Your task to perform on an android device: open a bookmark in the chrome app Image 0: 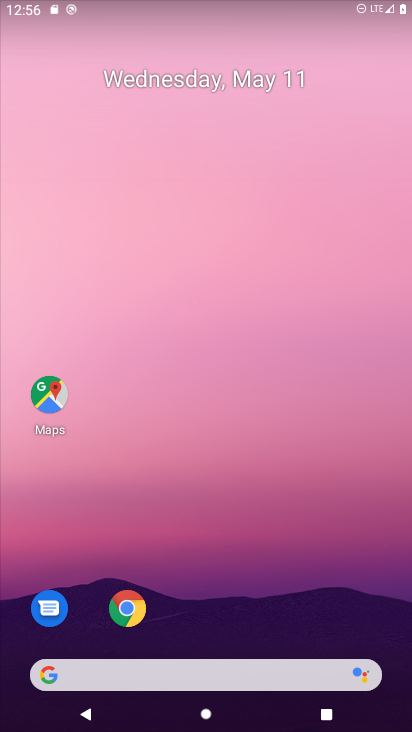
Step 0: drag from (201, 576) to (217, 79)
Your task to perform on an android device: open a bookmark in the chrome app Image 1: 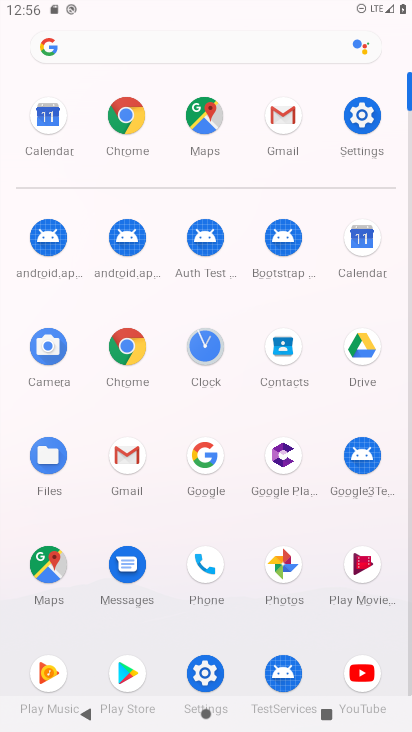
Step 1: click (132, 117)
Your task to perform on an android device: open a bookmark in the chrome app Image 2: 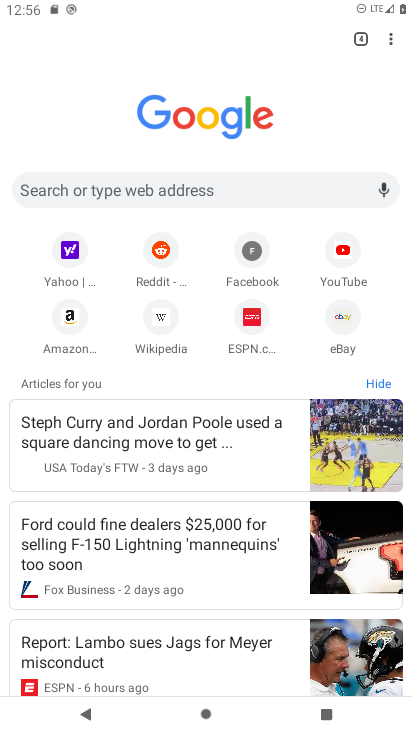
Step 2: click (392, 39)
Your task to perform on an android device: open a bookmark in the chrome app Image 3: 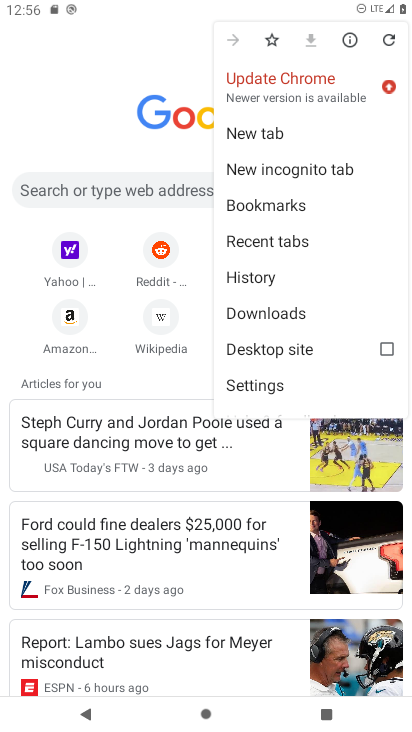
Step 3: click (310, 197)
Your task to perform on an android device: open a bookmark in the chrome app Image 4: 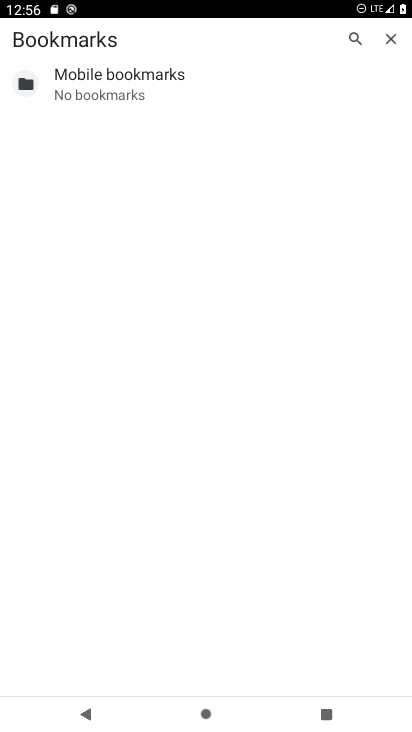
Step 4: click (146, 85)
Your task to perform on an android device: open a bookmark in the chrome app Image 5: 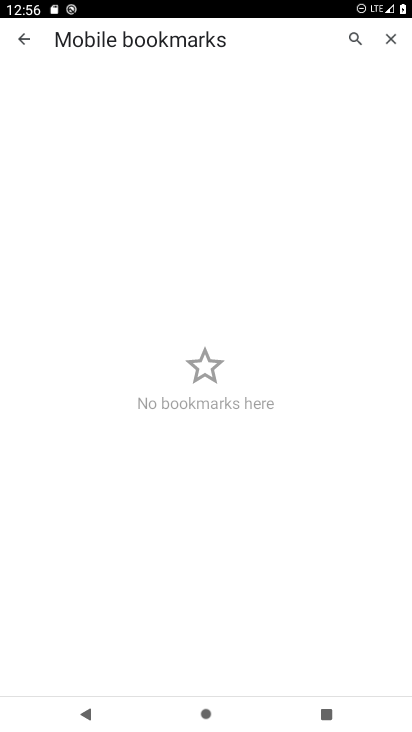
Step 5: task complete